Your task to perform on an android device: clear all cookies in the chrome app Image 0: 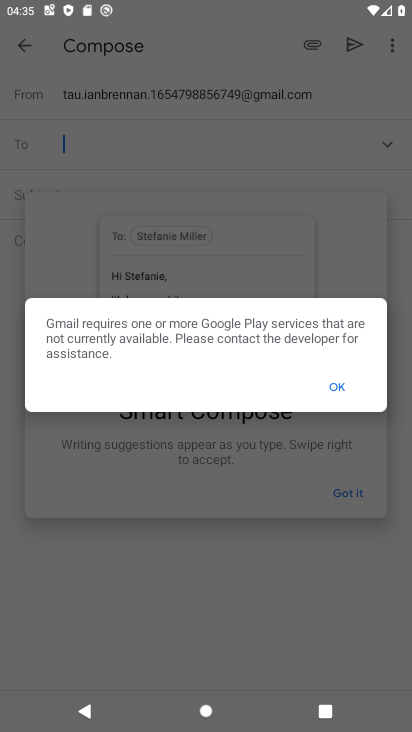
Step 0: press home button
Your task to perform on an android device: clear all cookies in the chrome app Image 1: 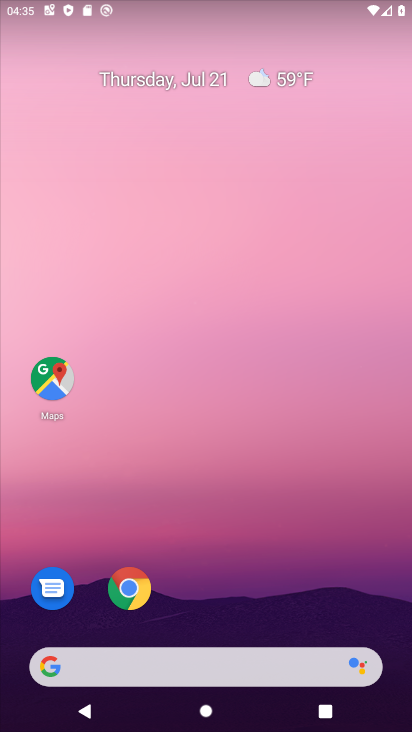
Step 1: click (130, 578)
Your task to perform on an android device: clear all cookies in the chrome app Image 2: 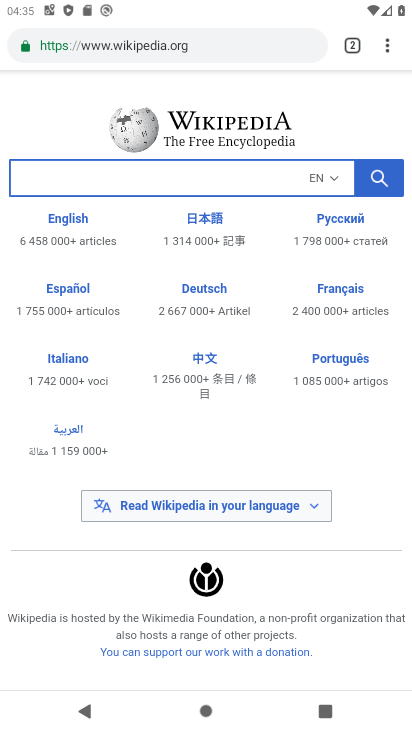
Step 2: click (389, 37)
Your task to perform on an android device: clear all cookies in the chrome app Image 3: 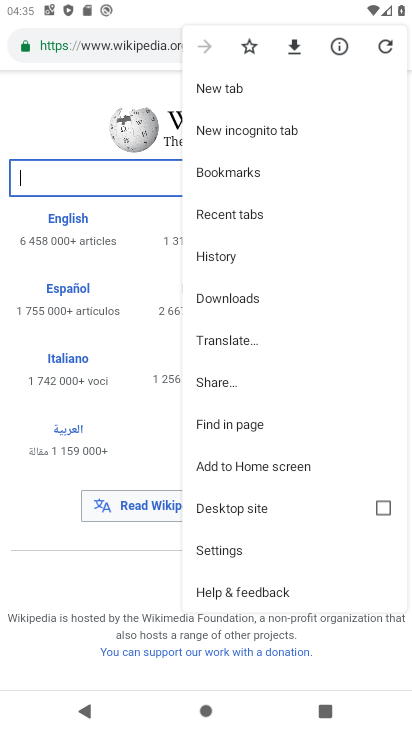
Step 3: click (223, 261)
Your task to perform on an android device: clear all cookies in the chrome app Image 4: 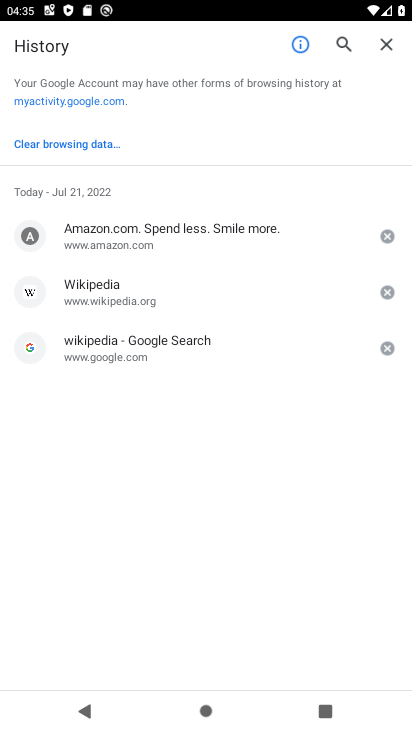
Step 4: click (92, 146)
Your task to perform on an android device: clear all cookies in the chrome app Image 5: 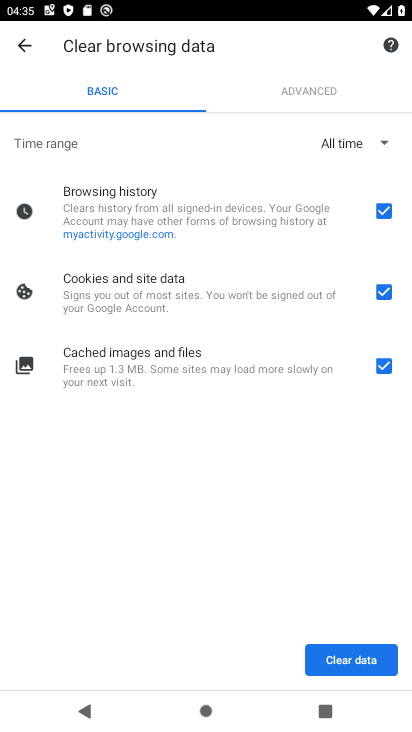
Step 5: click (371, 659)
Your task to perform on an android device: clear all cookies in the chrome app Image 6: 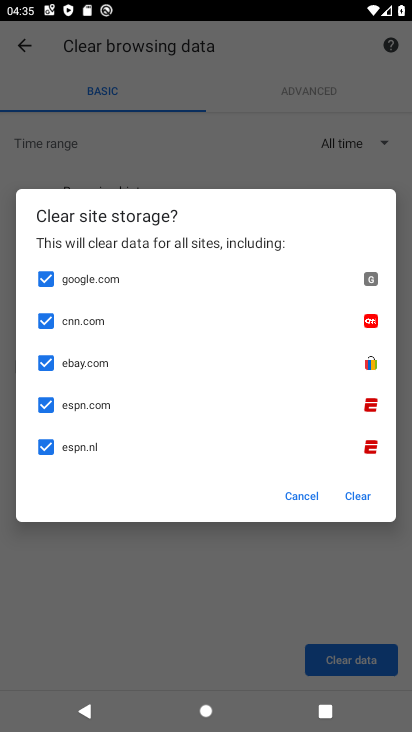
Step 6: click (294, 494)
Your task to perform on an android device: clear all cookies in the chrome app Image 7: 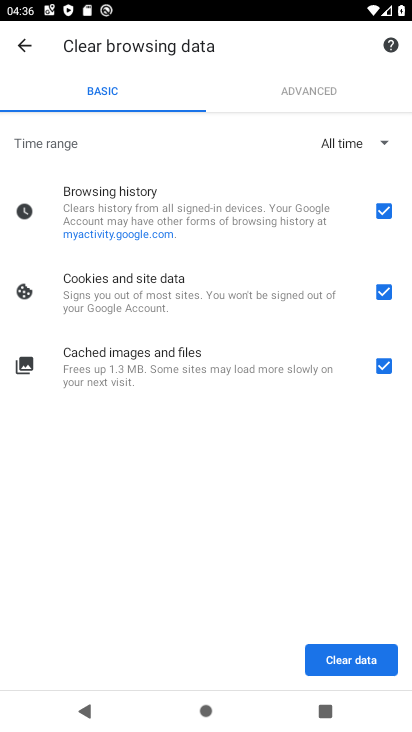
Step 7: click (373, 204)
Your task to perform on an android device: clear all cookies in the chrome app Image 8: 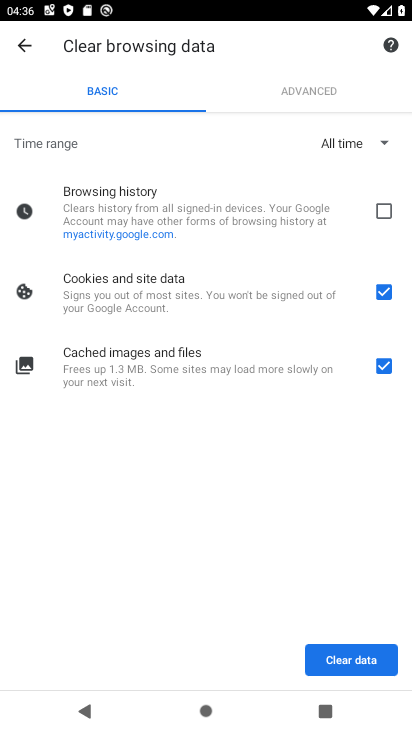
Step 8: click (373, 362)
Your task to perform on an android device: clear all cookies in the chrome app Image 9: 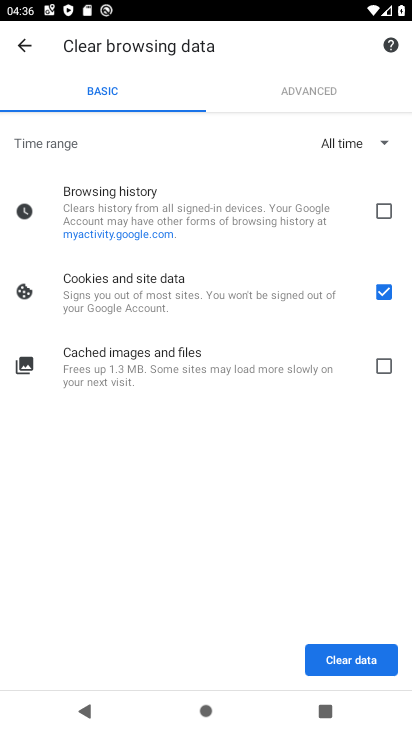
Step 9: click (354, 658)
Your task to perform on an android device: clear all cookies in the chrome app Image 10: 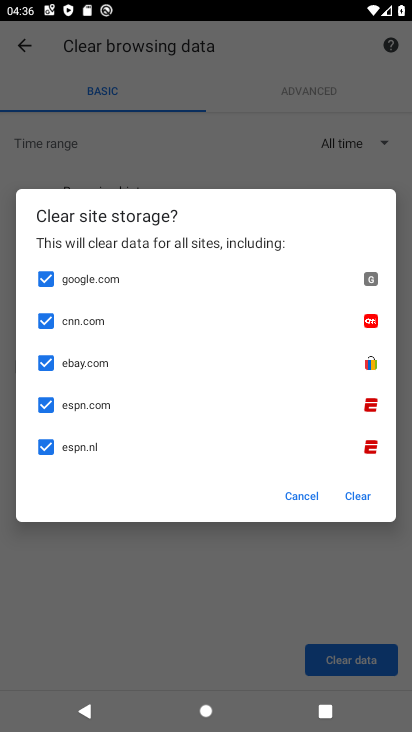
Step 10: click (357, 493)
Your task to perform on an android device: clear all cookies in the chrome app Image 11: 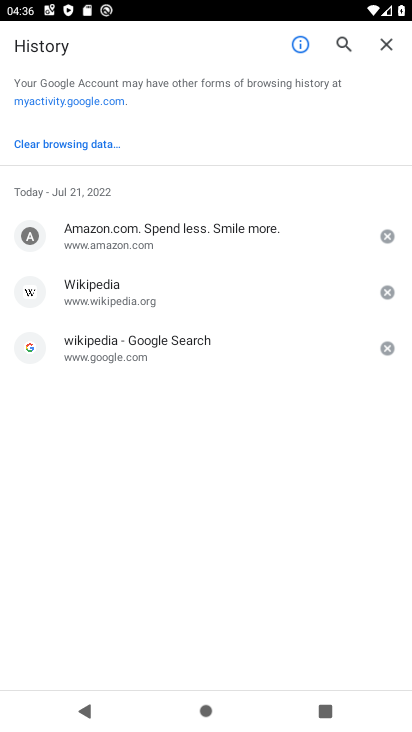
Step 11: task complete